Your task to perform on an android device: Go to display settings Image 0: 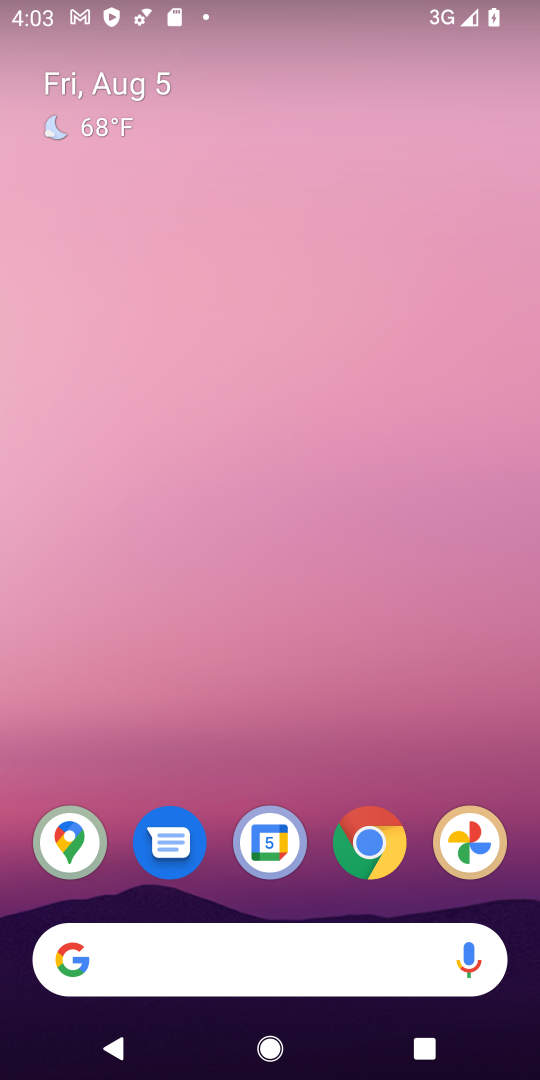
Step 0: drag from (399, 784) to (311, 273)
Your task to perform on an android device: Go to display settings Image 1: 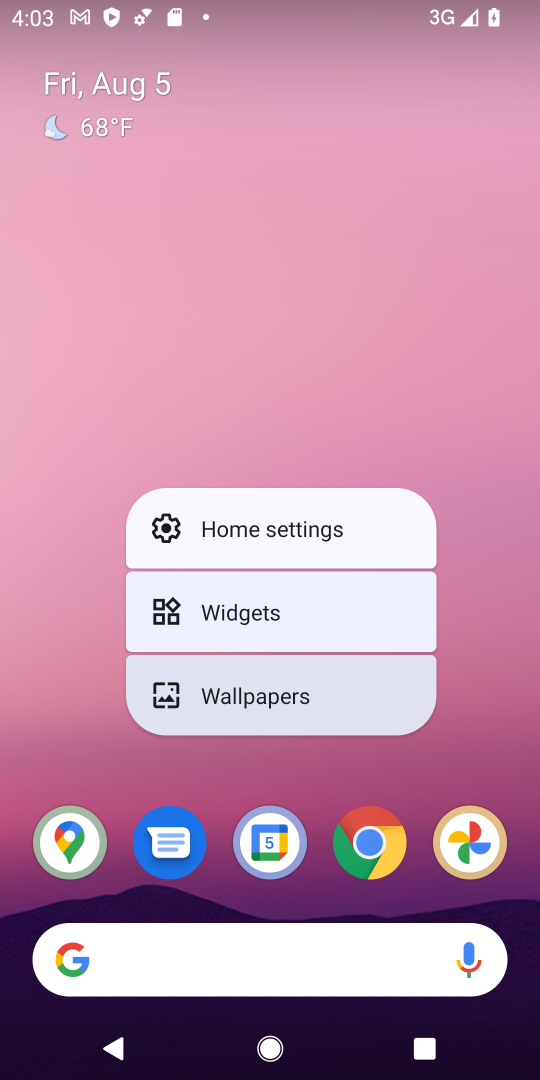
Step 1: click (491, 715)
Your task to perform on an android device: Go to display settings Image 2: 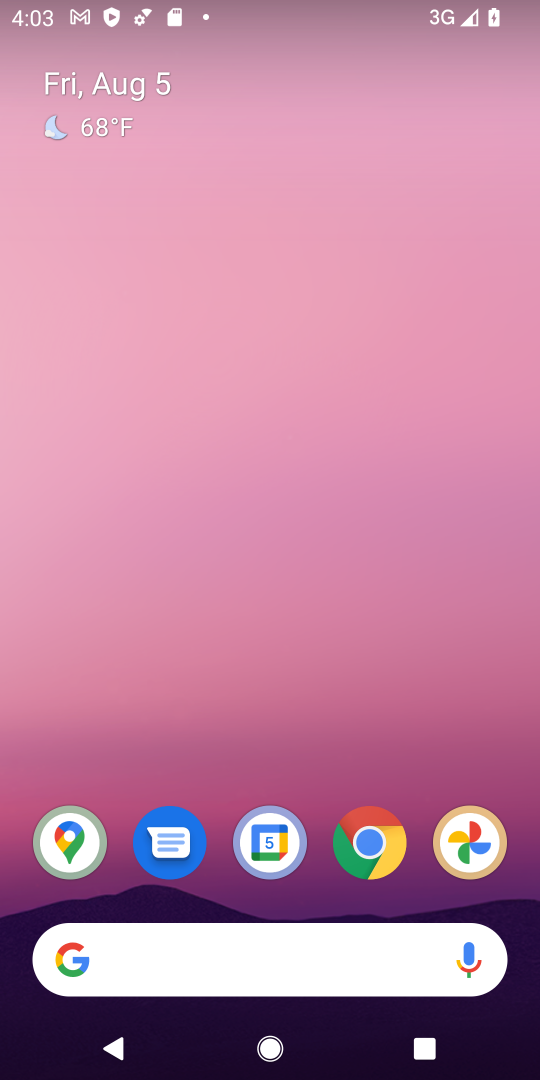
Step 2: drag from (310, 778) to (346, 193)
Your task to perform on an android device: Go to display settings Image 3: 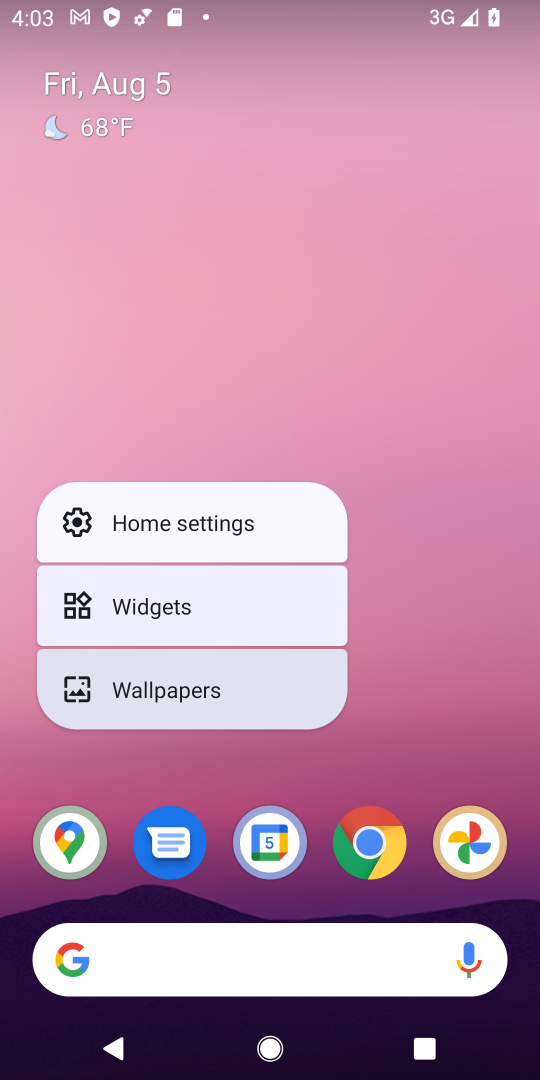
Step 3: click (484, 749)
Your task to perform on an android device: Go to display settings Image 4: 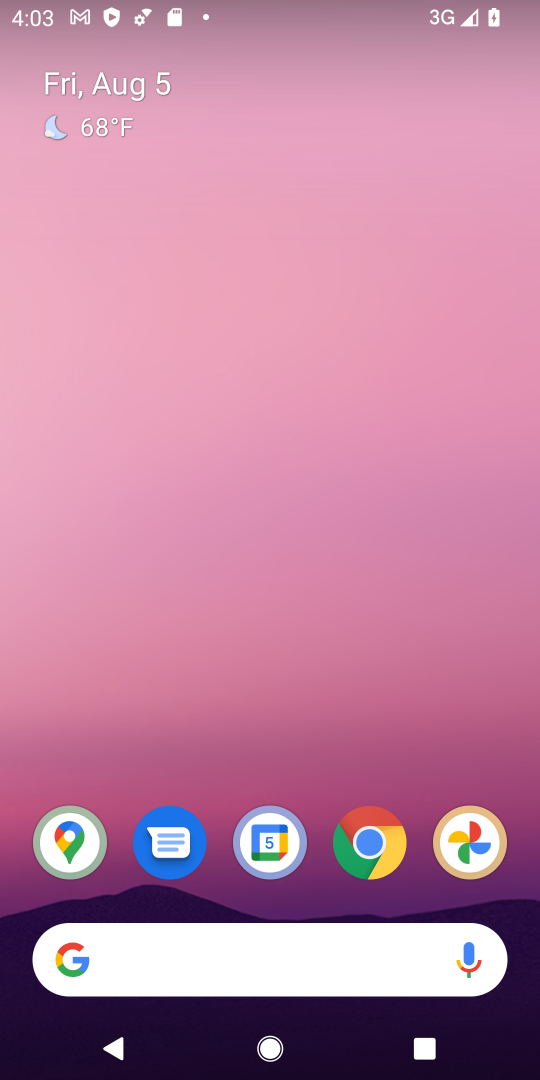
Step 4: drag from (344, 752) to (329, 225)
Your task to perform on an android device: Go to display settings Image 5: 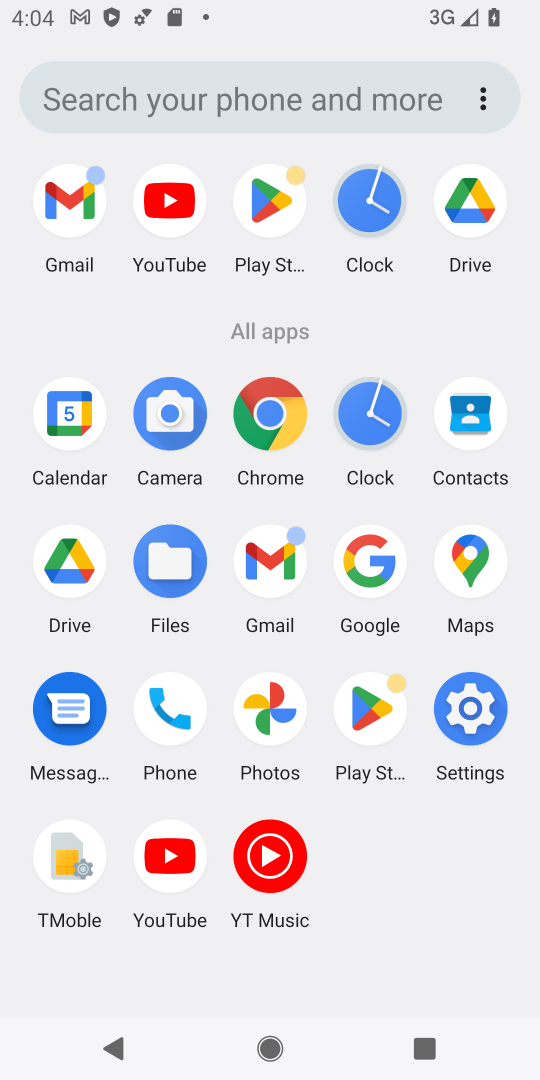
Step 5: click (478, 711)
Your task to perform on an android device: Go to display settings Image 6: 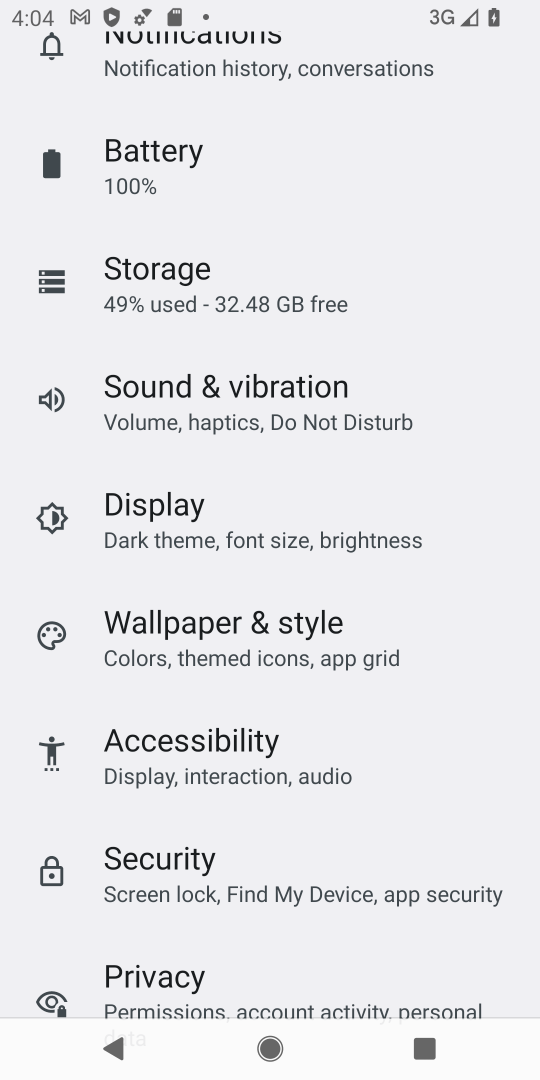
Step 6: click (294, 535)
Your task to perform on an android device: Go to display settings Image 7: 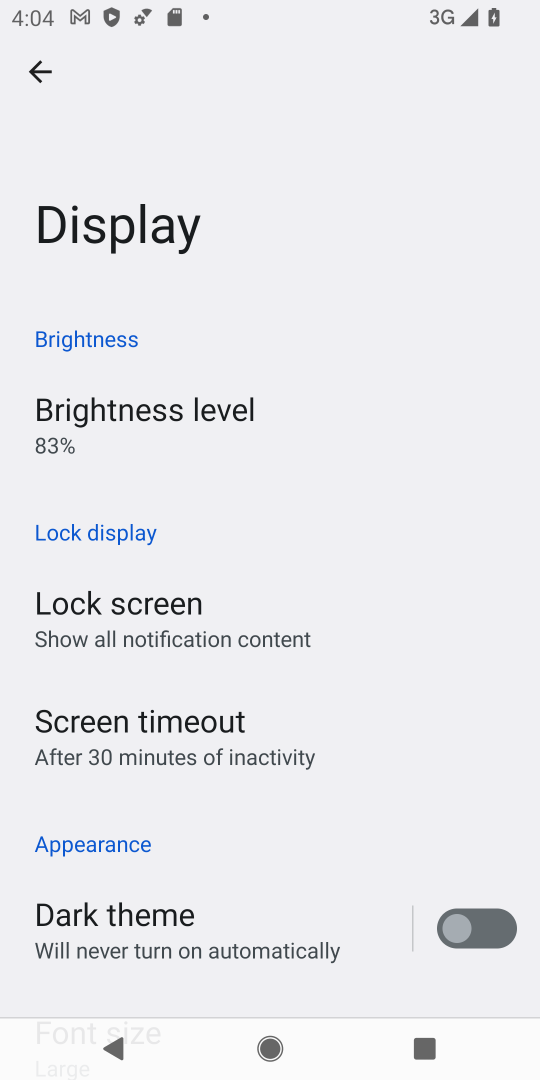
Step 7: task complete